Your task to perform on an android device: check storage Image 0: 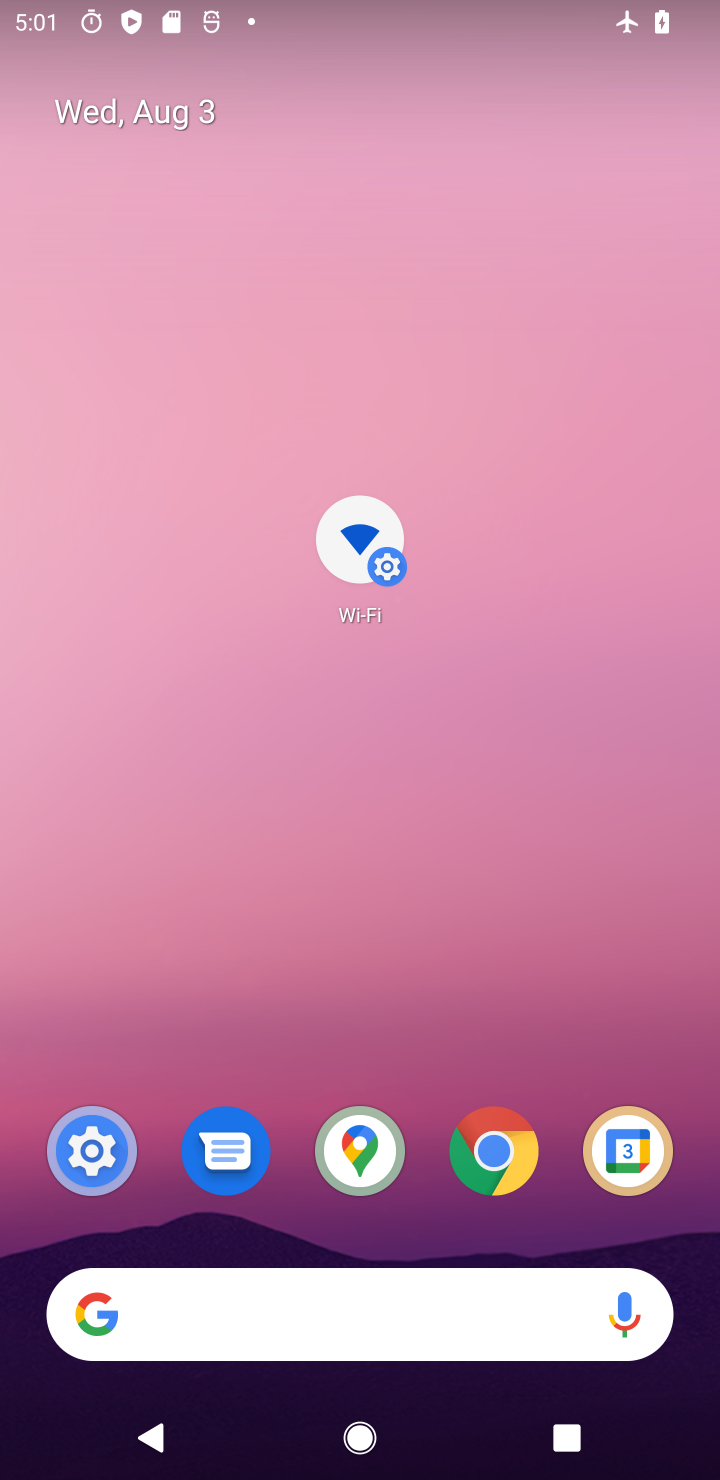
Step 0: drag from (515, 1184) to (444, 474)
Your task to perform on an android device: check storage Image 1: 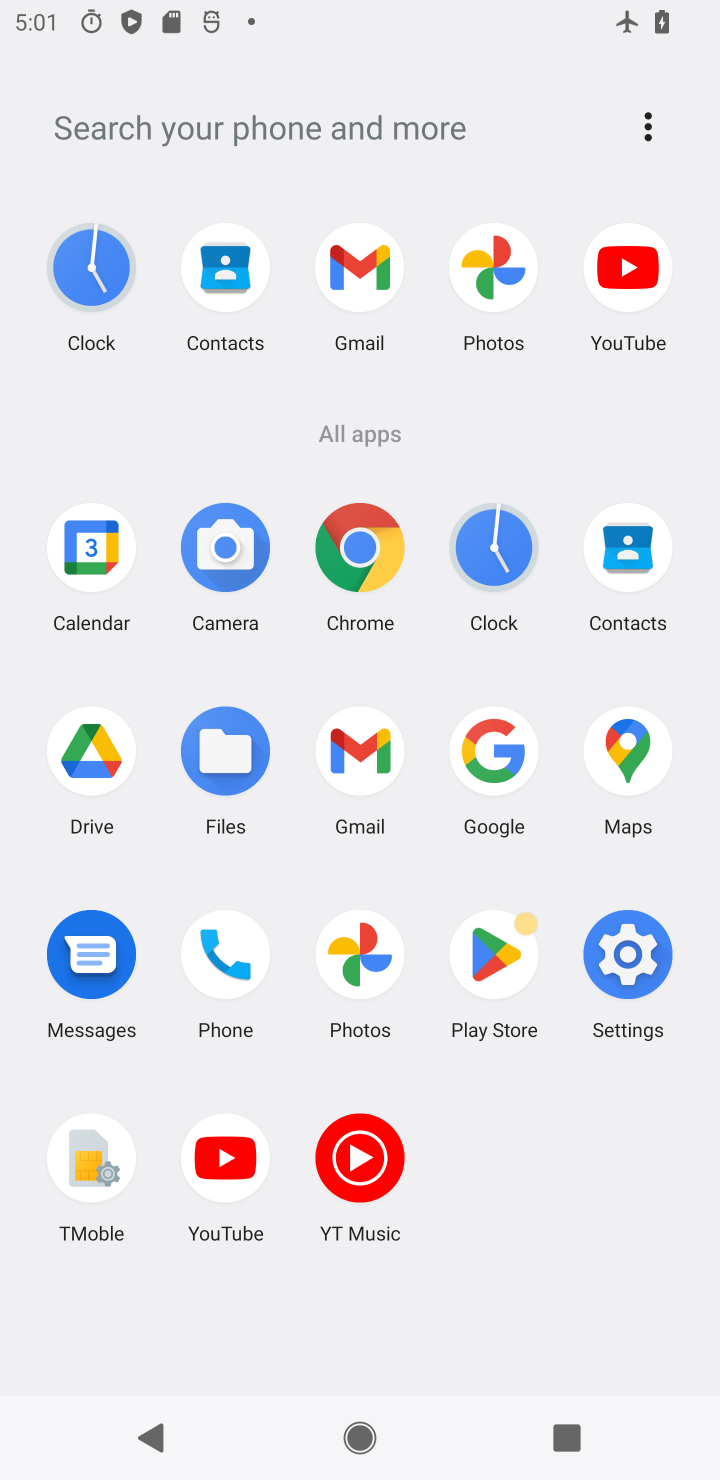
Step 1: drag from (416, 1130) to (311, 405)
Your task to perform on an android device: check storage Image 2: 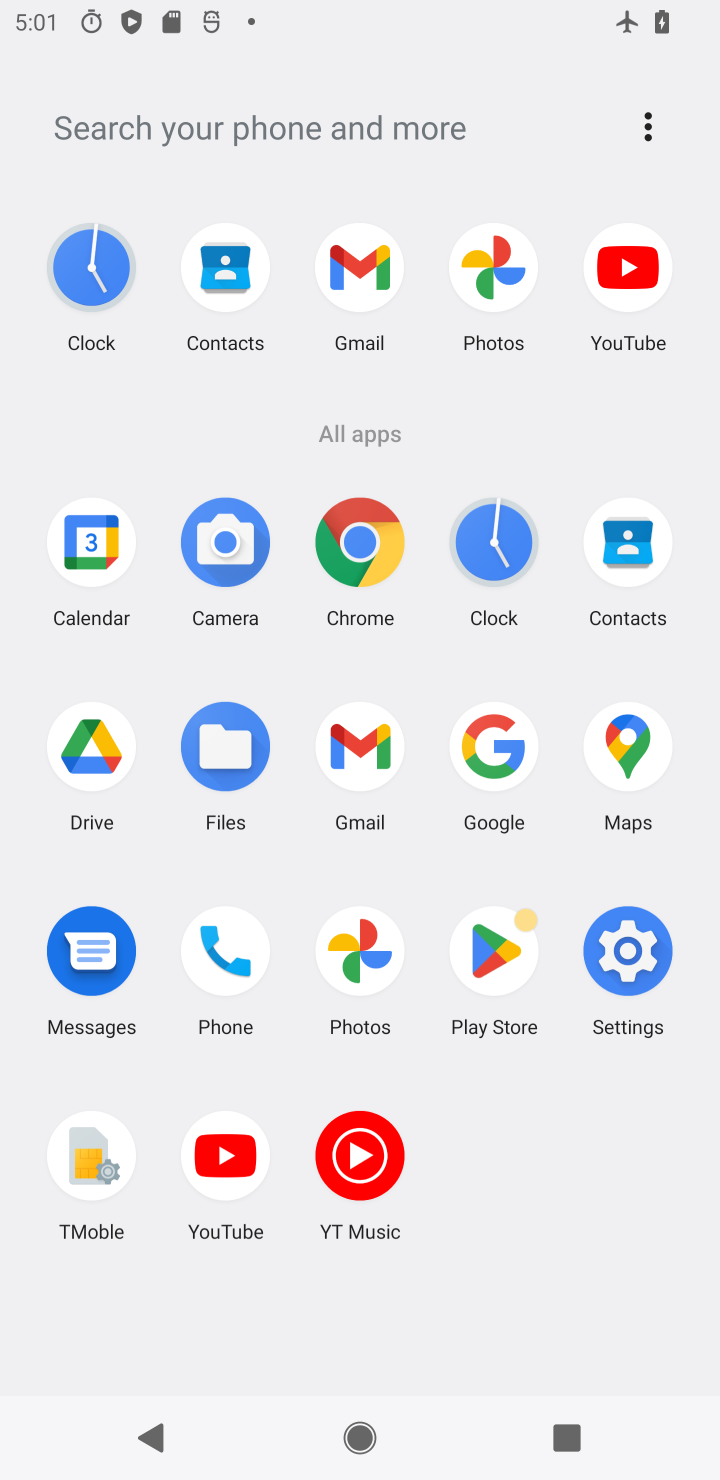
Step 2: click (633, 940)
Your task to perform on an android device: check storage Image 3: 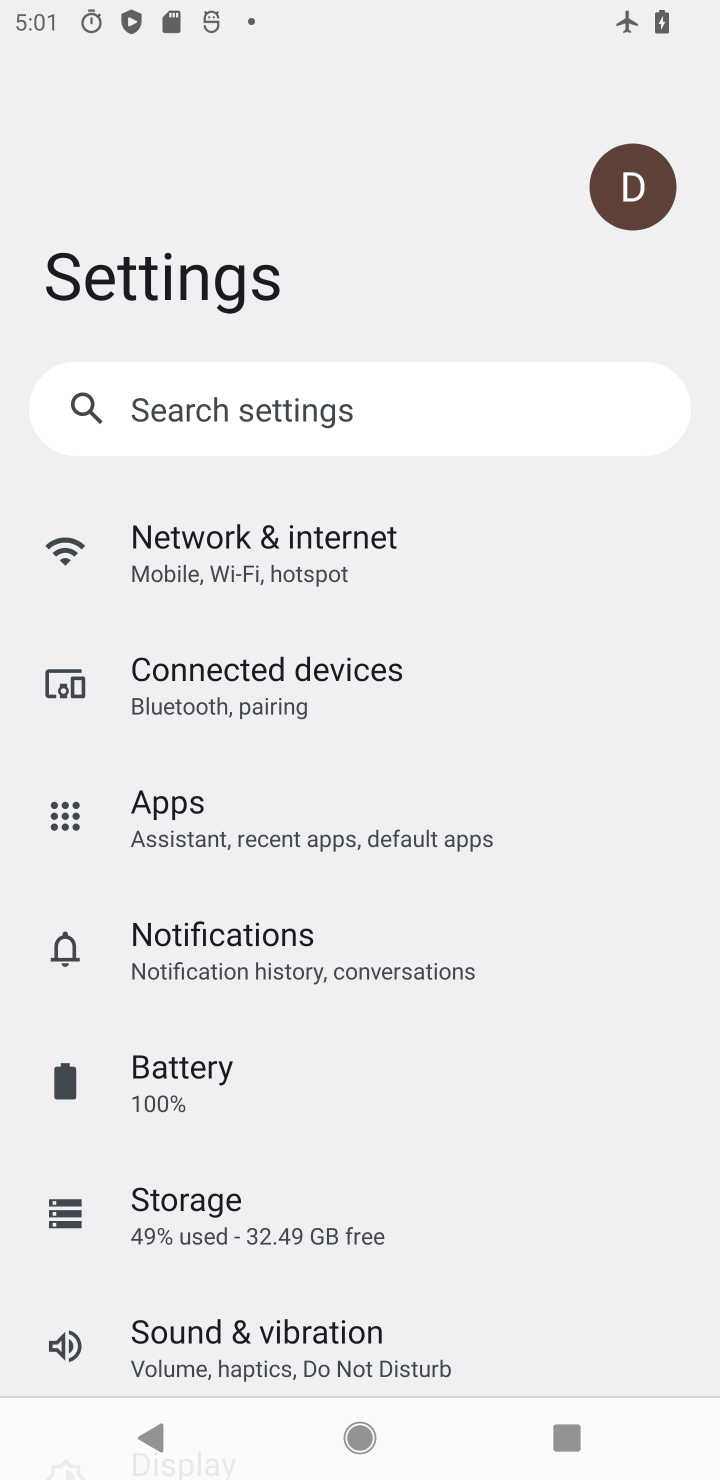
Step 3: click (164, 1213)
Your task to perform on an android device: check storage Image 4: 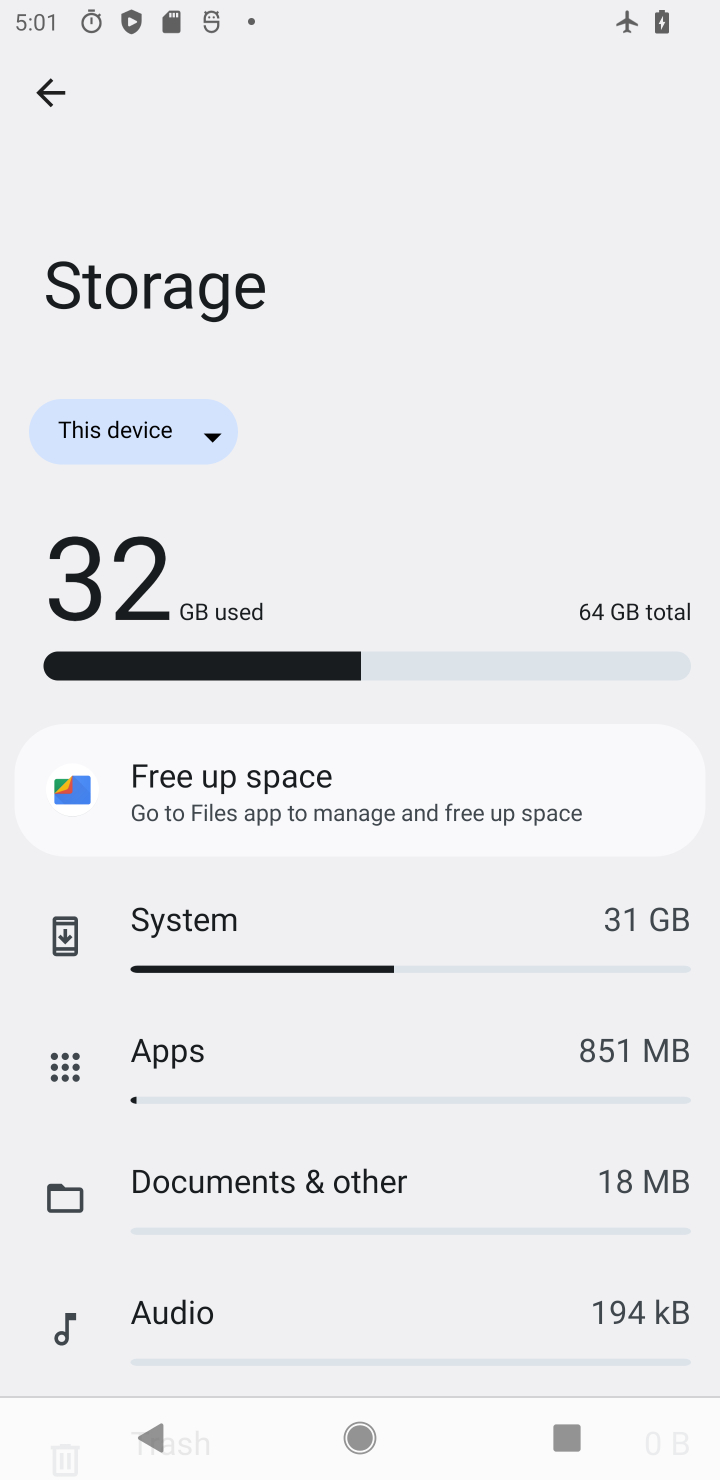
Step 4: task complete